Your task to perform on an android device: open a bookmark in the chrome app Image 0: 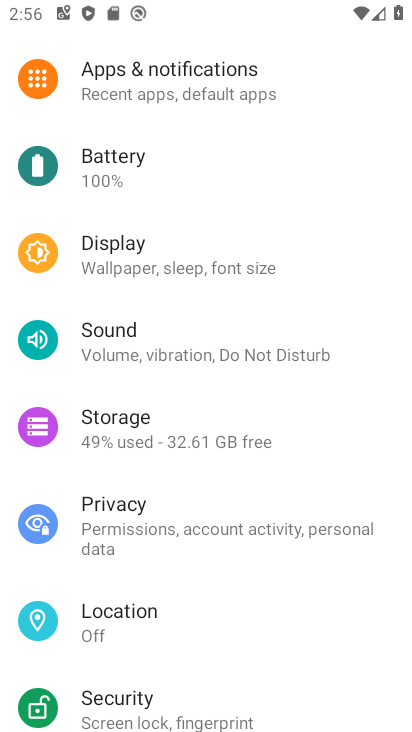
Step 0: press home button
Your task to perform on an android device: open a bookmark in the chrome app Image 1: 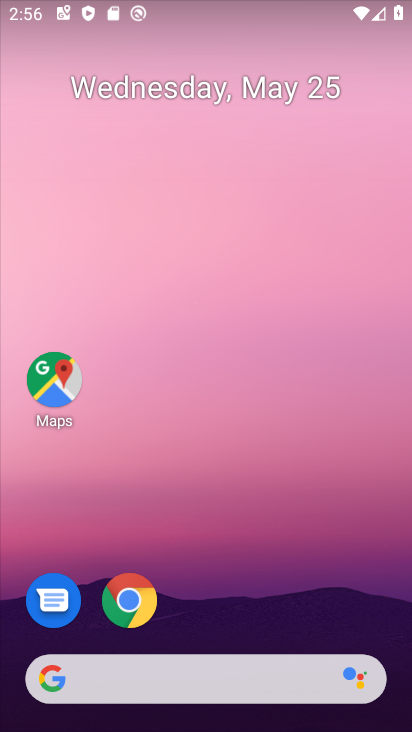
Step 1: click (136, 599)
Your task to perform on an android device: open a bookmark in the chrome app Image 2: 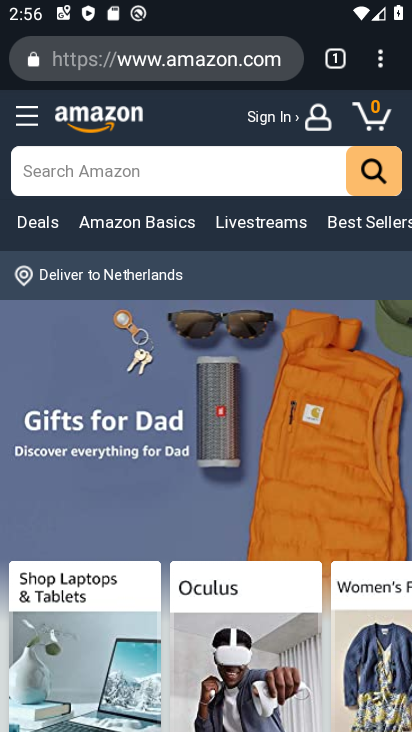
Step 2: click (381, 66)
Your task to perform on an android device: open a bookmark in the chrome app Image 3: 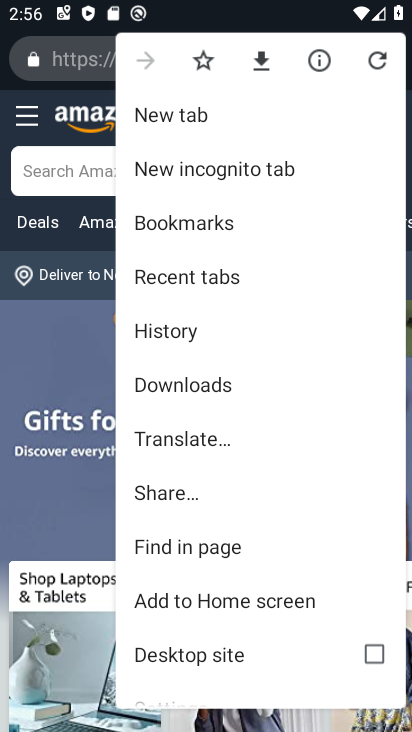
Step 3: click (219, 228)
Your task to perform on an android device: open a bookmark in the chrome app Image 4: 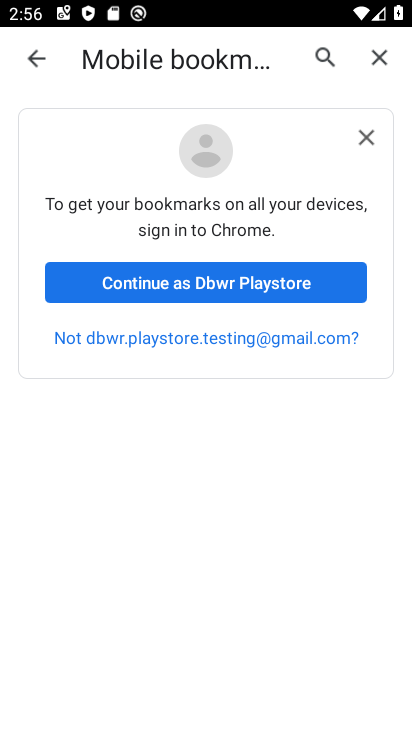
Step 4: click (367, 138)
Your task to perform on an android device: open a bookmark in the chrome app Image 5: 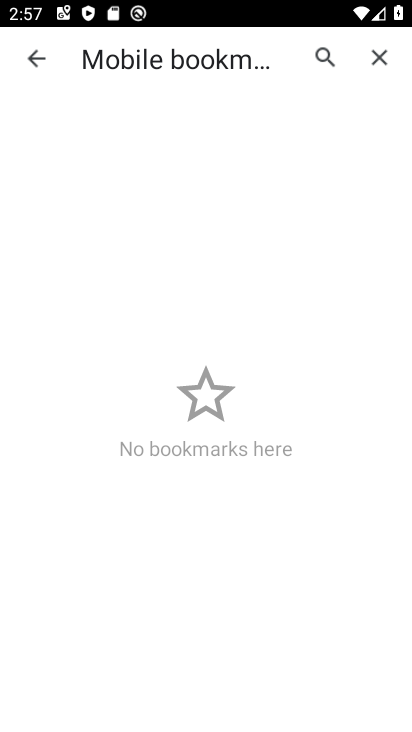
Step 5: task complete